Your task to perform on an android device: Clear the shopping cart on walmart. Search for "razer blackwidow" on walmart, select the first entry, and add it to the cart. Image 0: 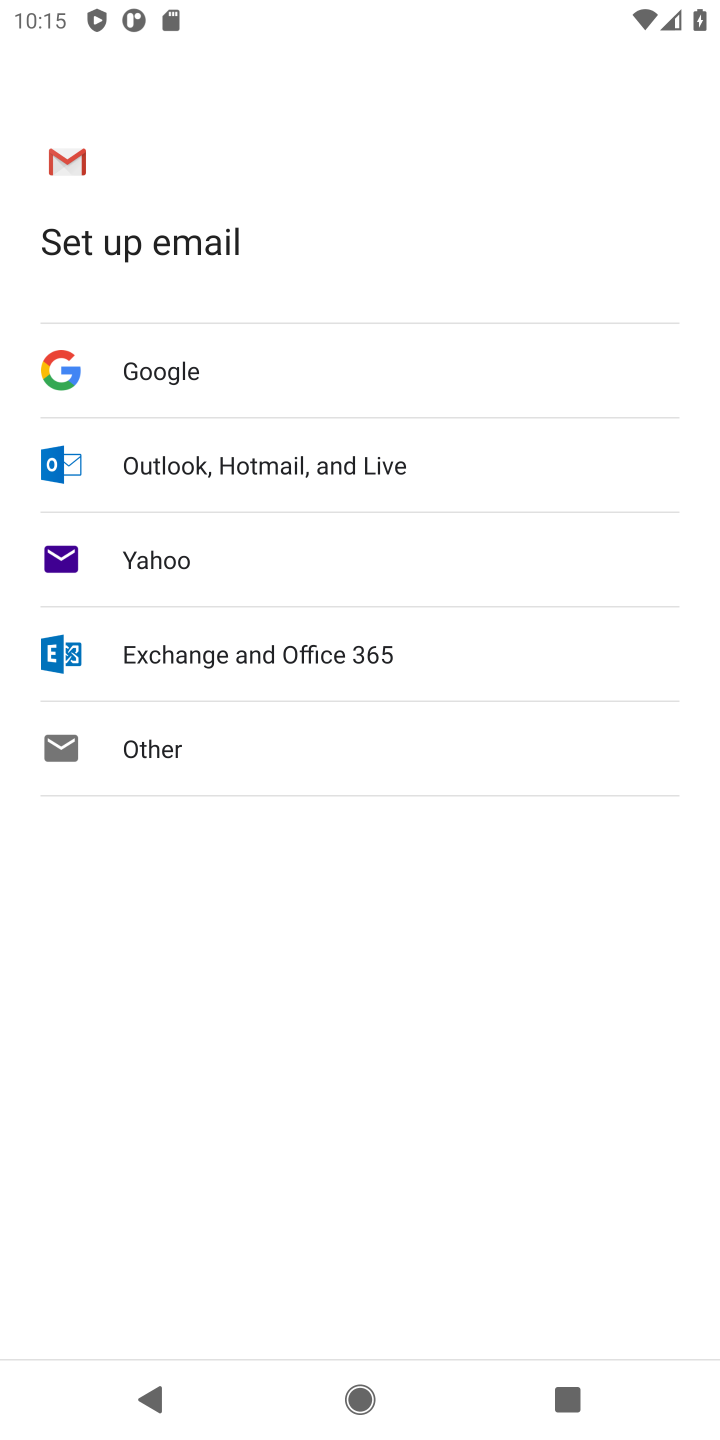
Step 0: press home button
Your task to perform on an android device: Clear the shopping cart on walmart. Search for "razer blackwidow" on walmart, select the first entry, and add it to the cart. Image 1: 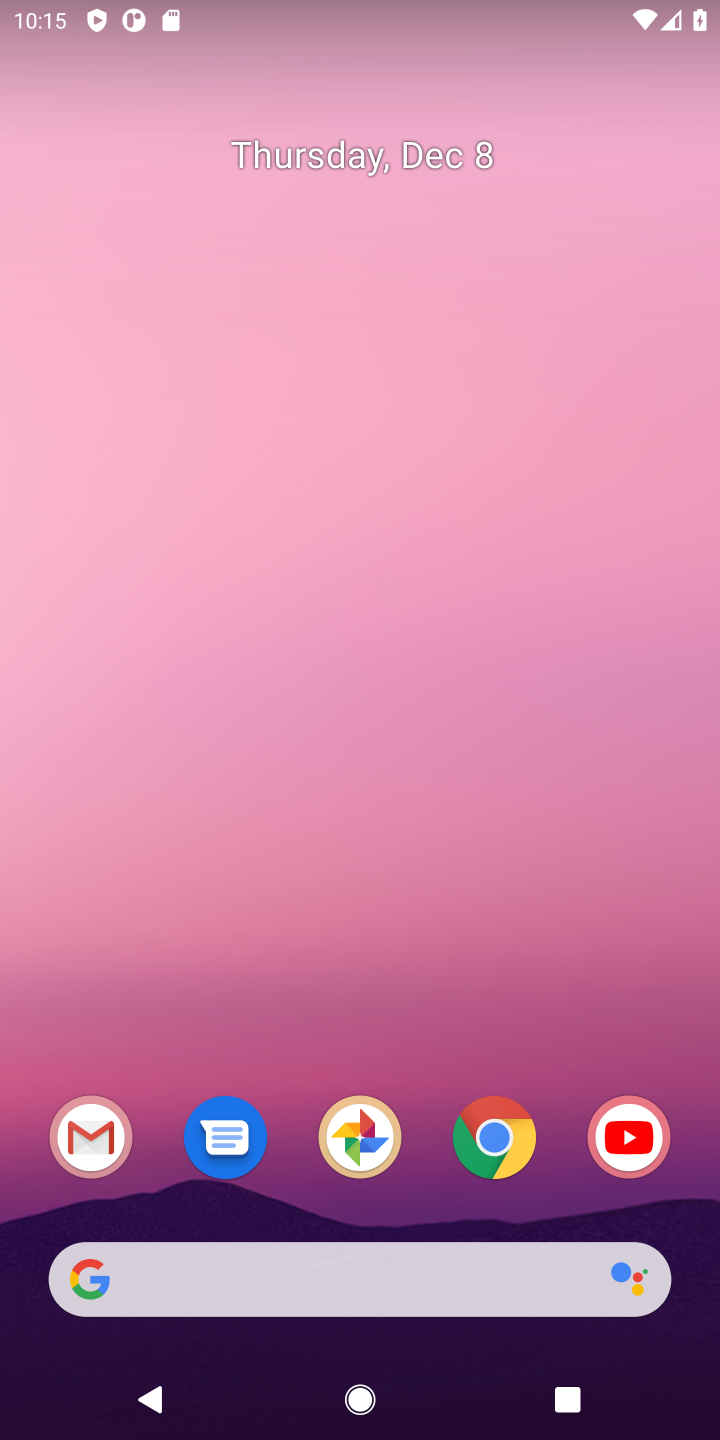
Step 1: click (481, 1128)
Your task to perform on an android device: Clear the shopping cart on walmart. Search for "razer blackwidow" on walmart, select the first entry, and add it to the cart. Image 2: 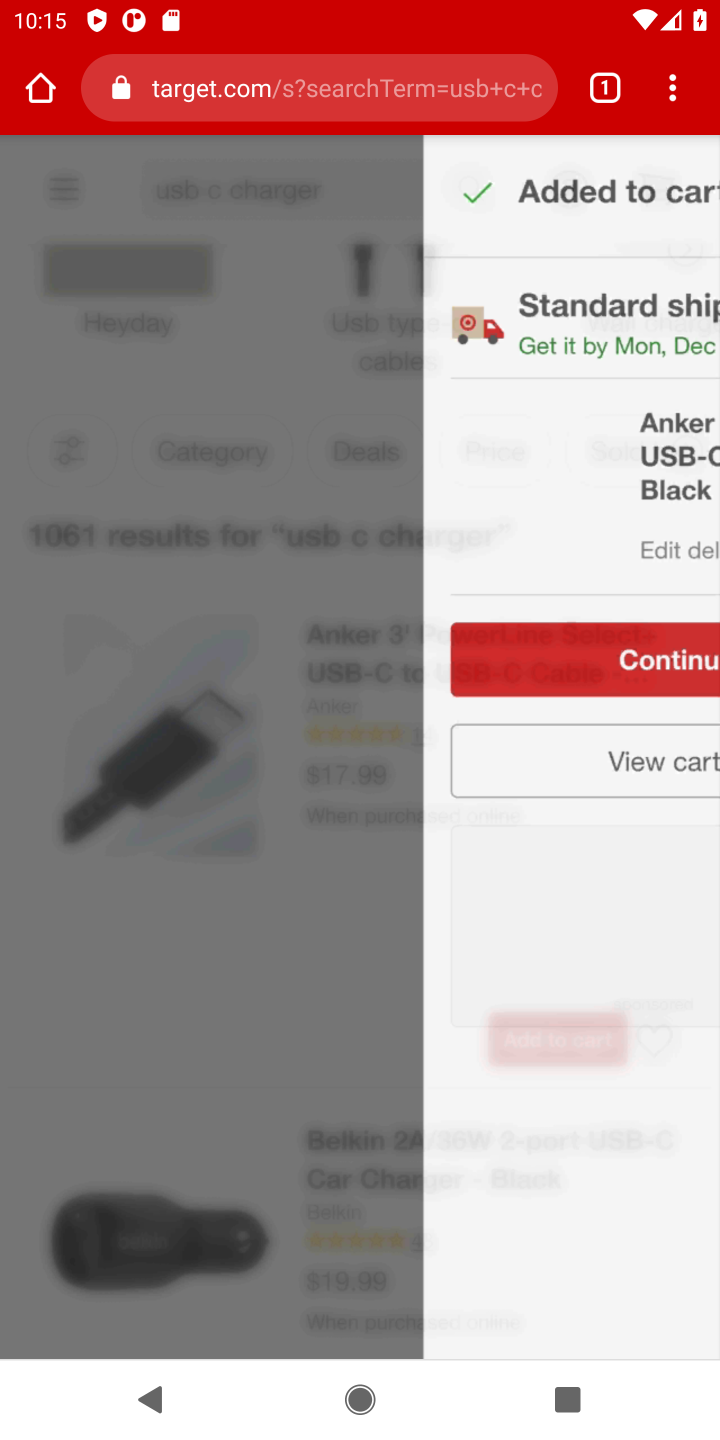
Step 2: click (319, 89)
Your task to perform on an android device: Clear the shopping cart on walmart. Search for "razer blackwidow" on walmart, select the first entry, and add it to the cart. Image 3: 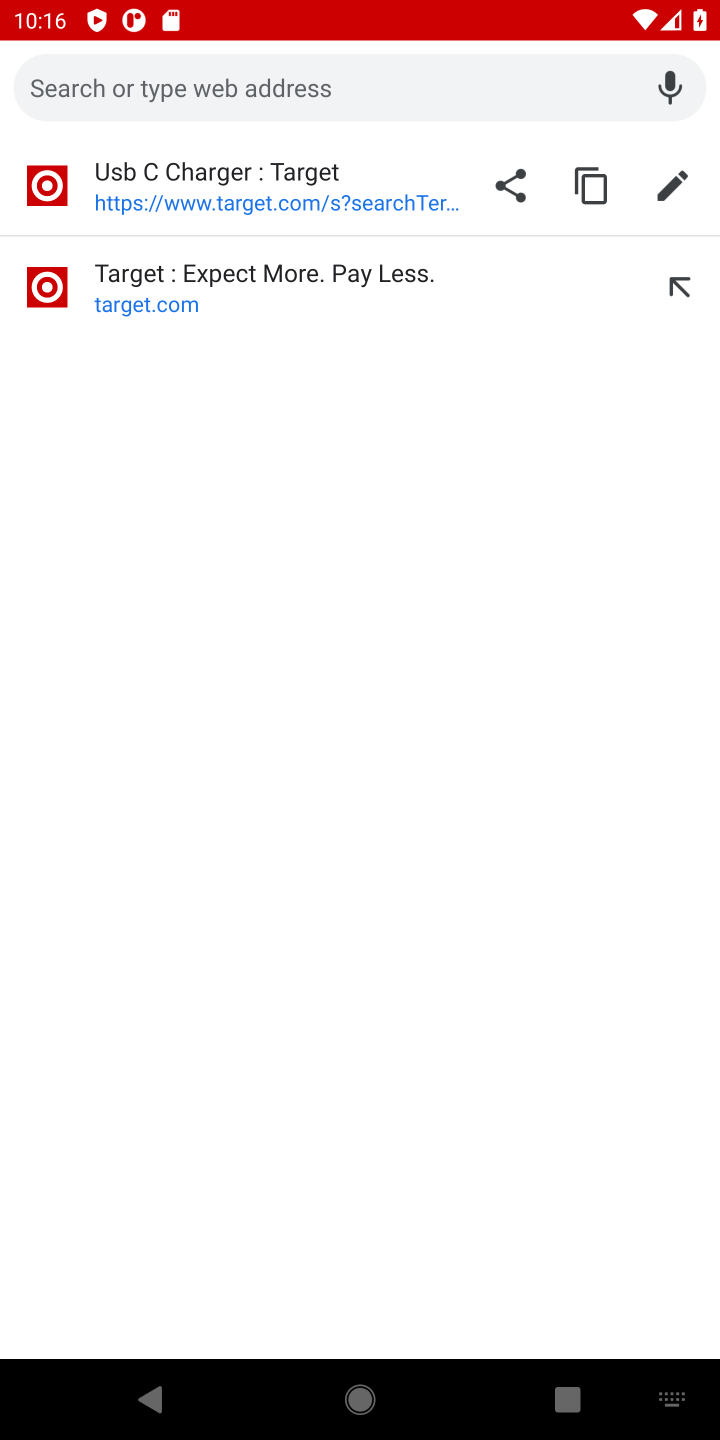
Step 3: type "walmart"
Your task to perform on an android device: Clear the shopping cart on walmart. Search for "razer blackwidow" on walmart, select the first entry, and add it to the cart. Image 4: 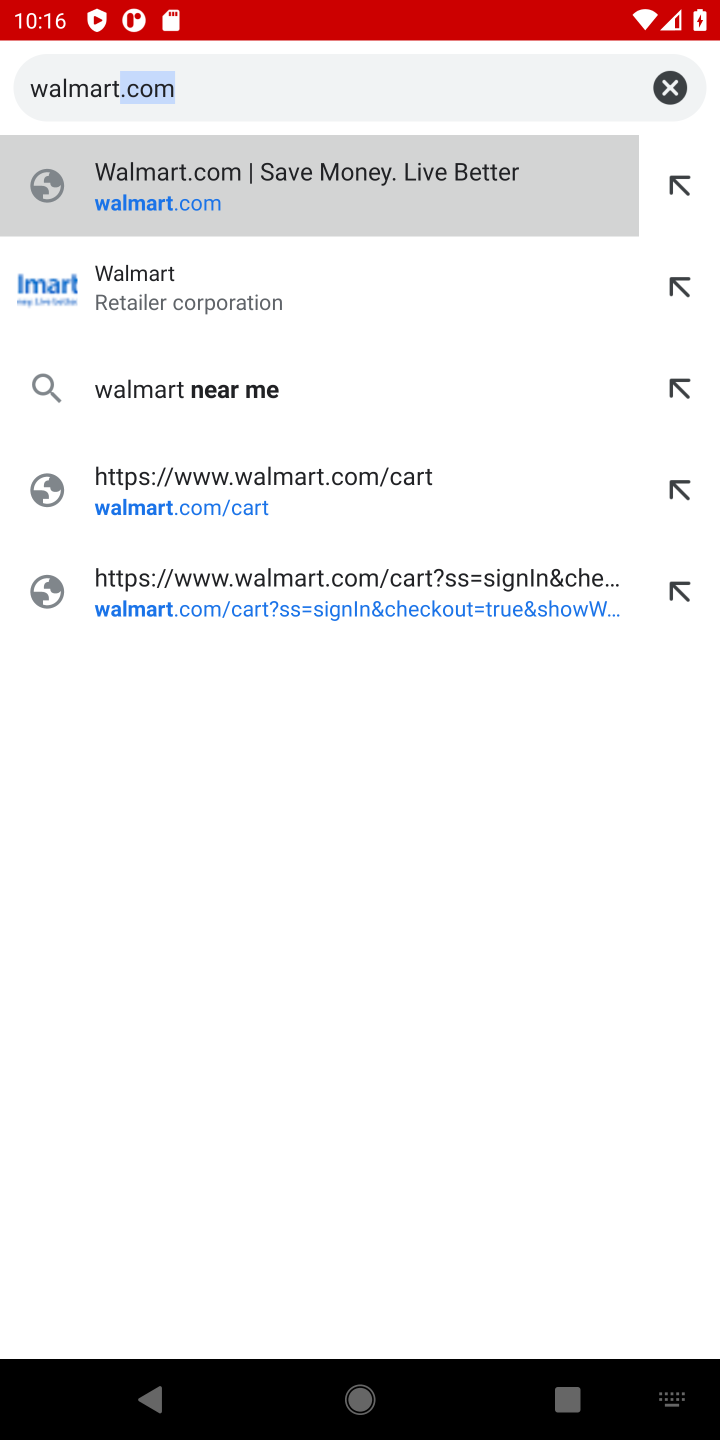
Step 4: click (194, 196)
Your task to perform on an android device: Clear the shopping cart on walmart. Search for "razer blackwidow" on walmart, select the first entry, and add it to the cart. Image 5: 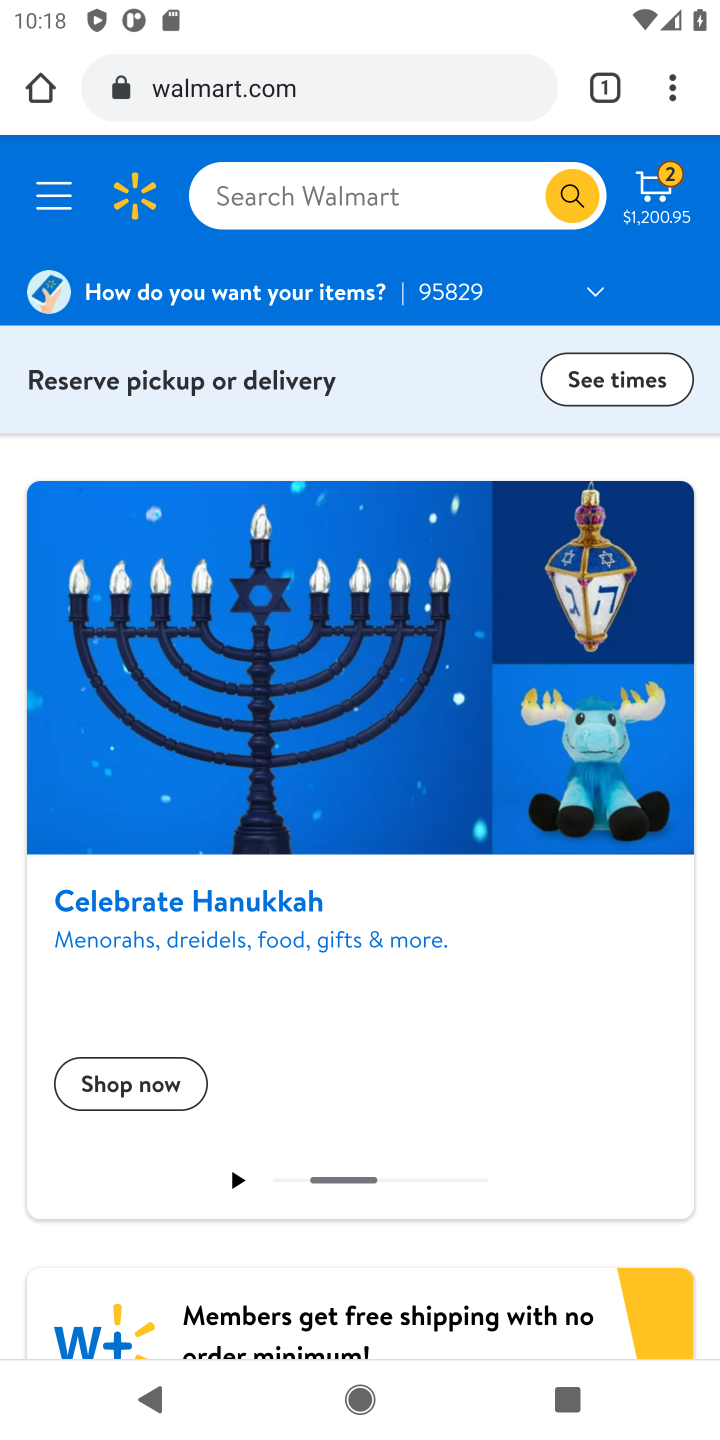
Step 5: click (382, 202)
Your task to perform on an android device: Clear the shopping cart on walmart. Search for "razer blackwidow" on walmart, select the first entry, and add it to the cart. Image 6: 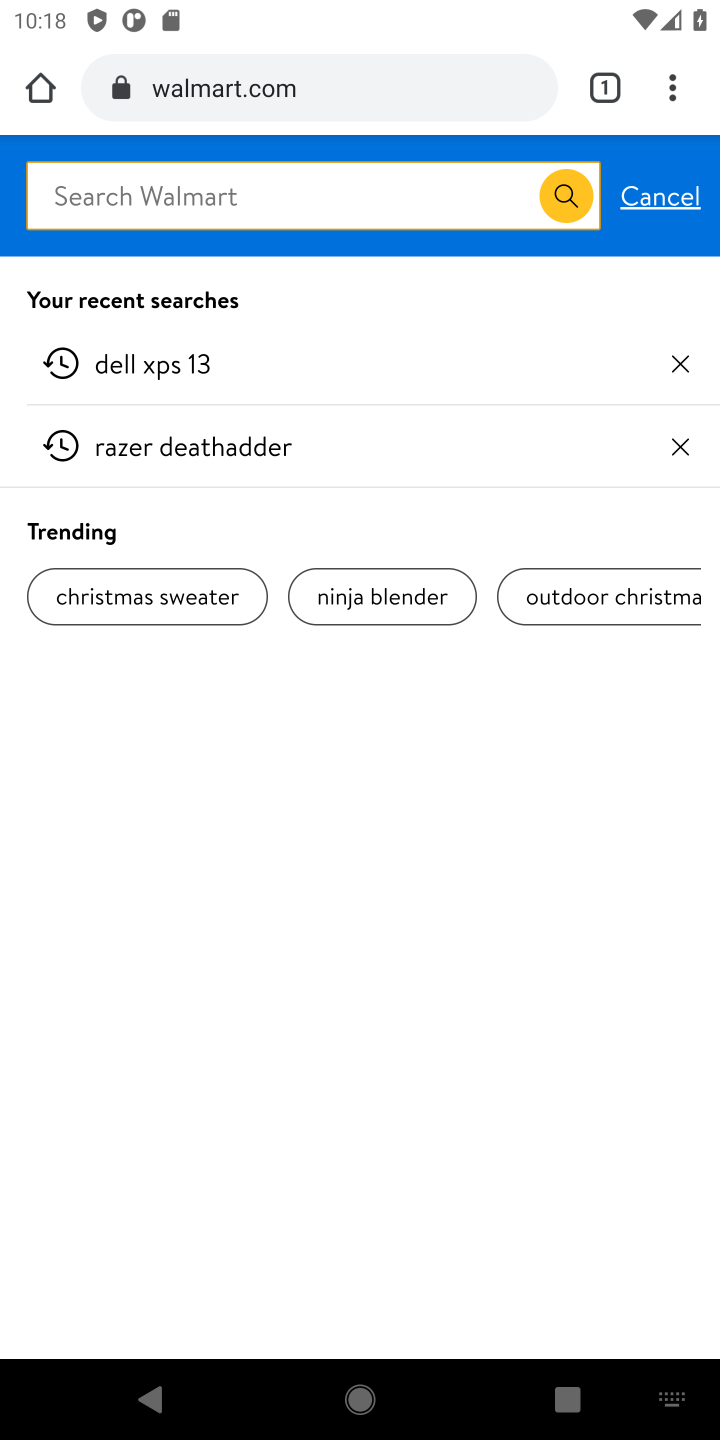
Step 6: click (139, 370)
Your task to perform on an android device: Clear the shopping cart on walmart. Search for "razer blackwidow" on walmart, select the first entry, and add it to the cart. Image 7: 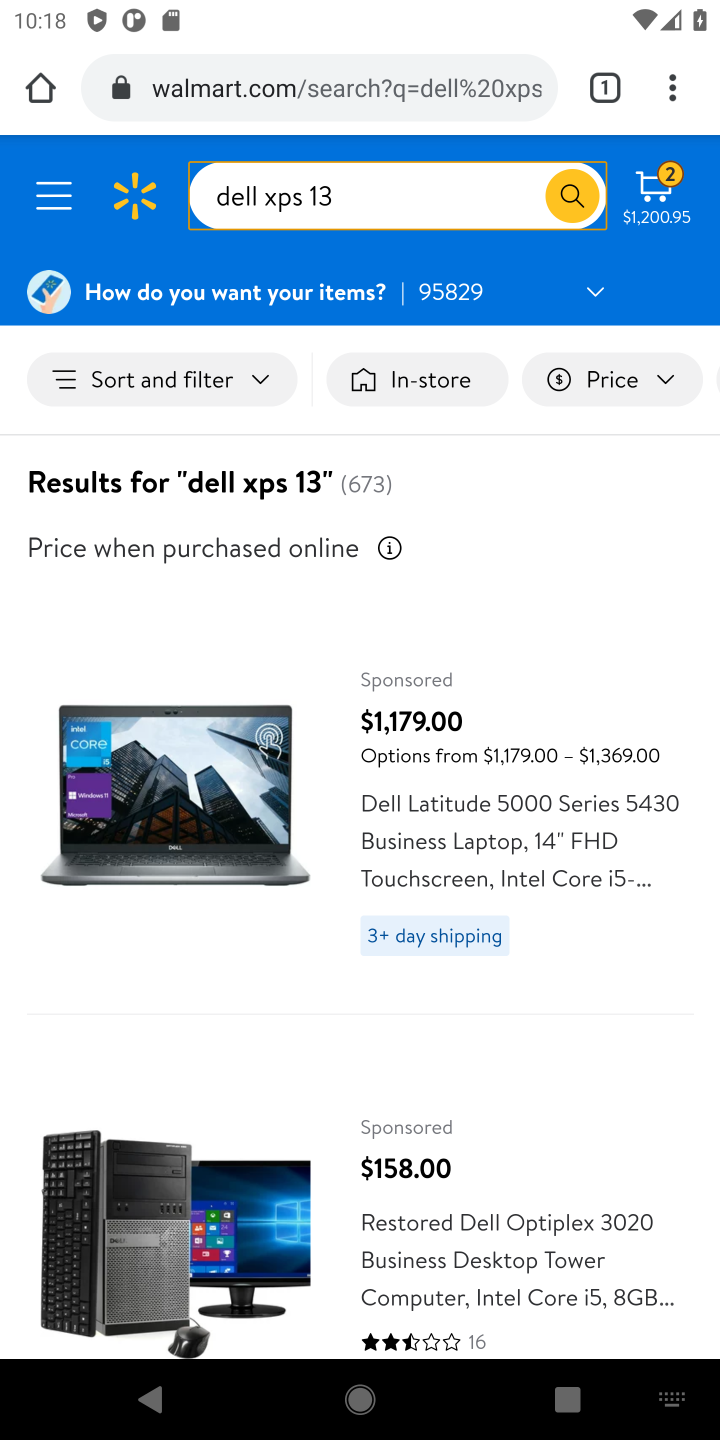
Step 7: click (652, 181)
Your task to perform on an android device: Clear the shopping cart on walmart. Search for "razer blackwidow" on walmart, select the first entry, and add it to the cart. Image 8: 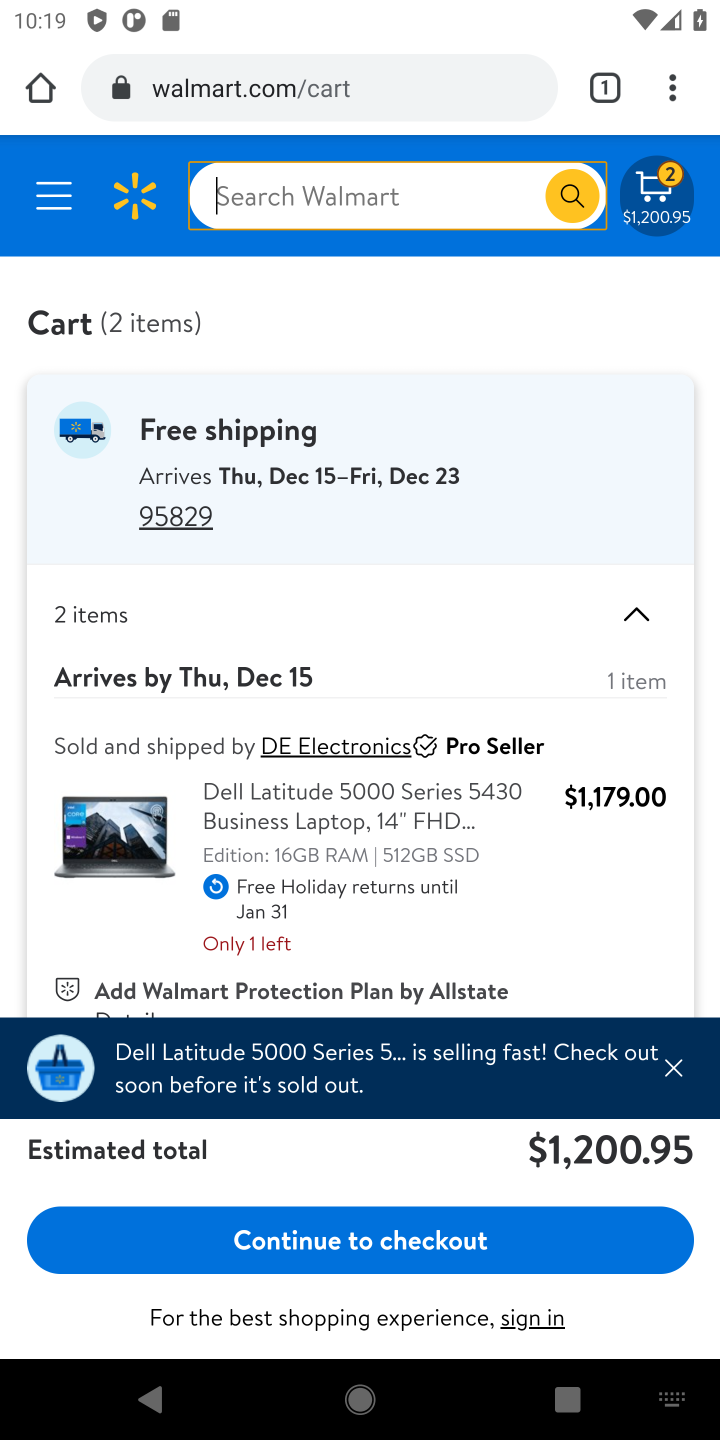
Step 8: drag from (470, 921) to (375, 249)
Your task to perform on an android device: Clear the shopping cart on walmart. Search for "razer blackwidow" on walmart, select the first entry, and add it to the cart. Image 9: 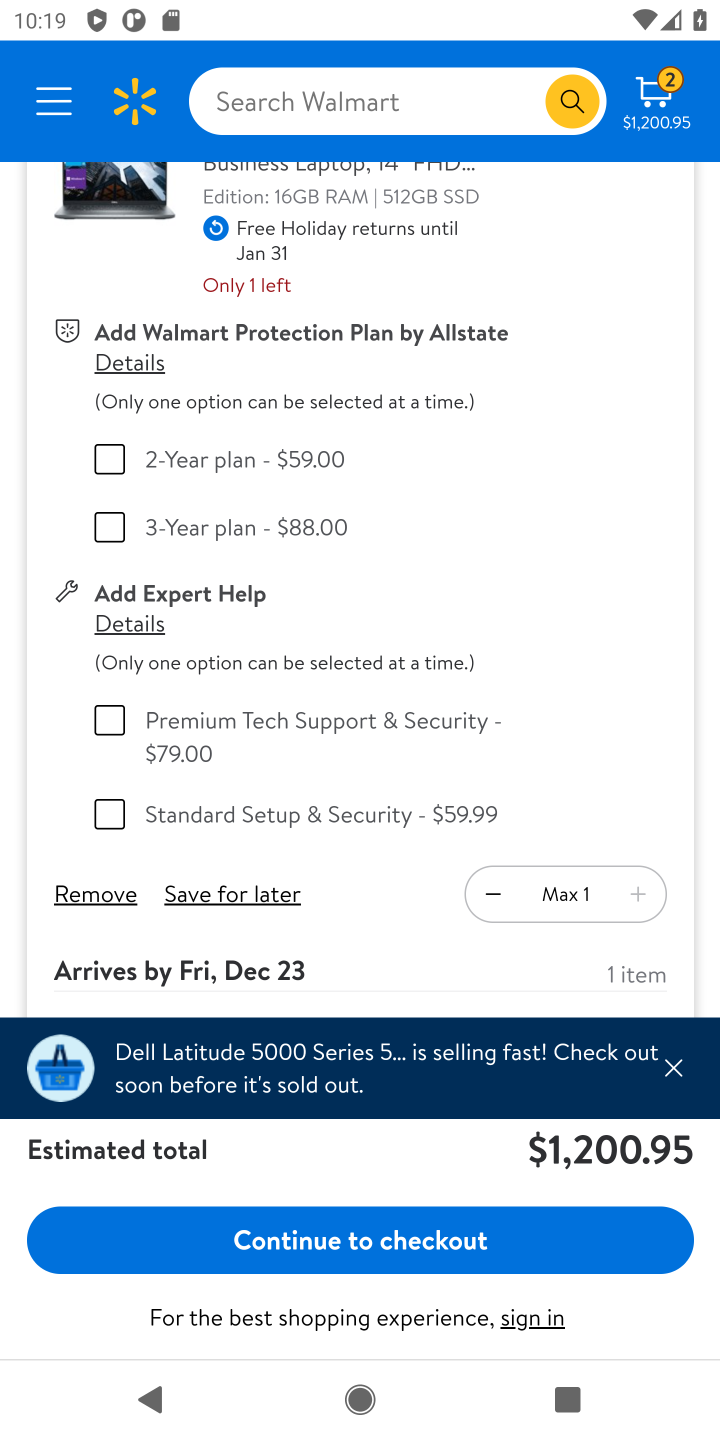
Step 9: click (72, 897)
Your task to perform on an android device: Clear the shopping cart on walmart. Search for "razer blackwidow" on walmart, select the first entry, and add it to the cart. Image 10: 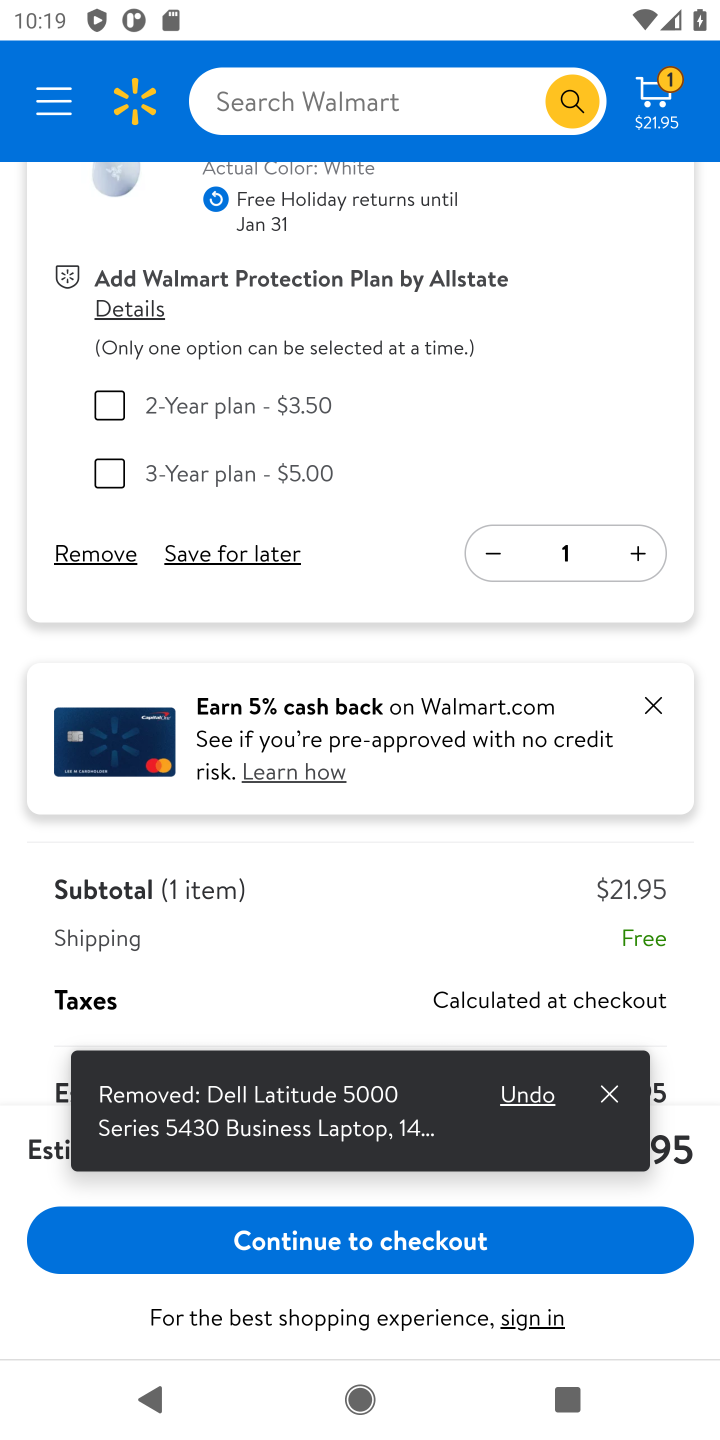
Step 10: click (95, 553)
Your task to perform on an android device: Clear the shopping cart on walmart. Search for "razer blackwidow" on walmart, select the first entry, and add it to the cart. Image 11: 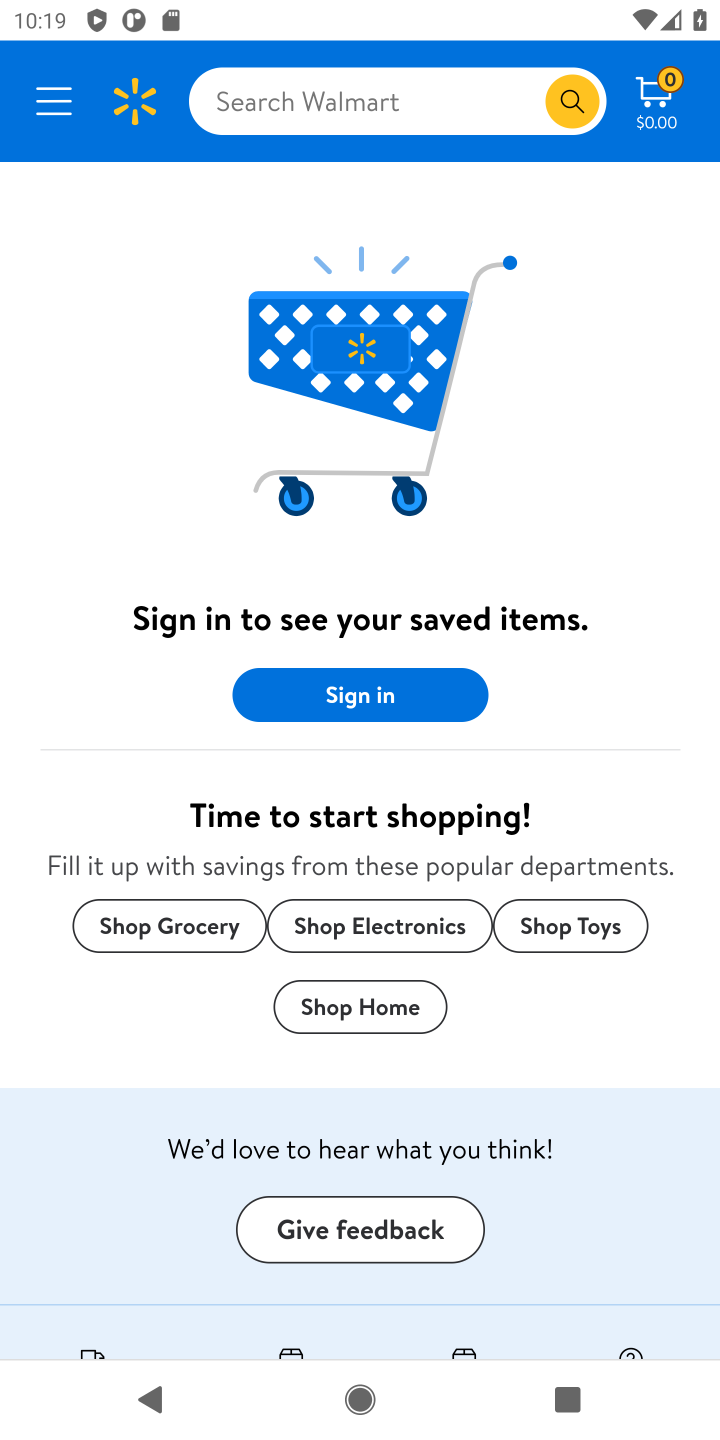
Step 11: click (464, 101)
Your task to perform on an android device: Clear the shopping cart on walmart. Search for "razer blackwidow" on walmart, select the first entry, and add it to the cart. Image 12: 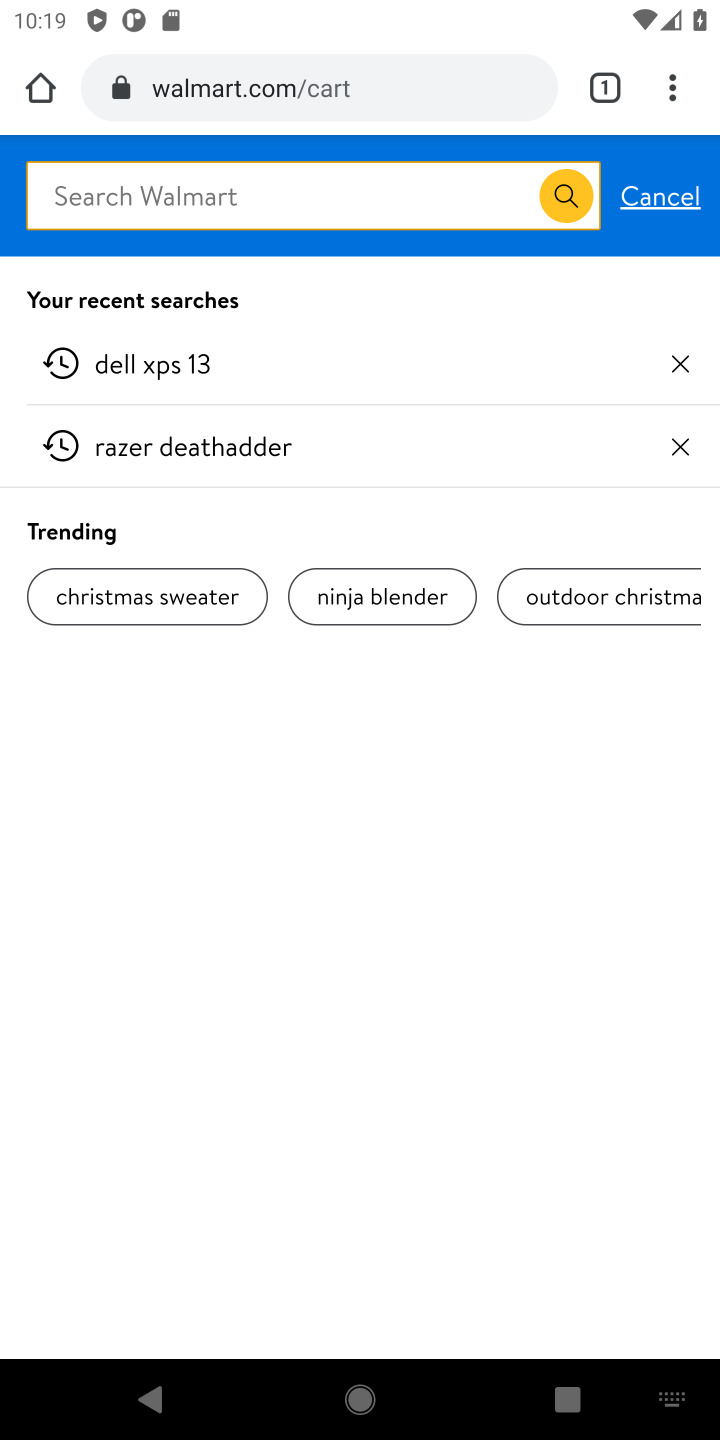
Step 12: type "razer blackwidow"
Your task to perform on an android device: Clear the shopping cart on walmart. Search for "razer blackwidow" on walmart, select the first entry, and add it to the cart. Image 13: 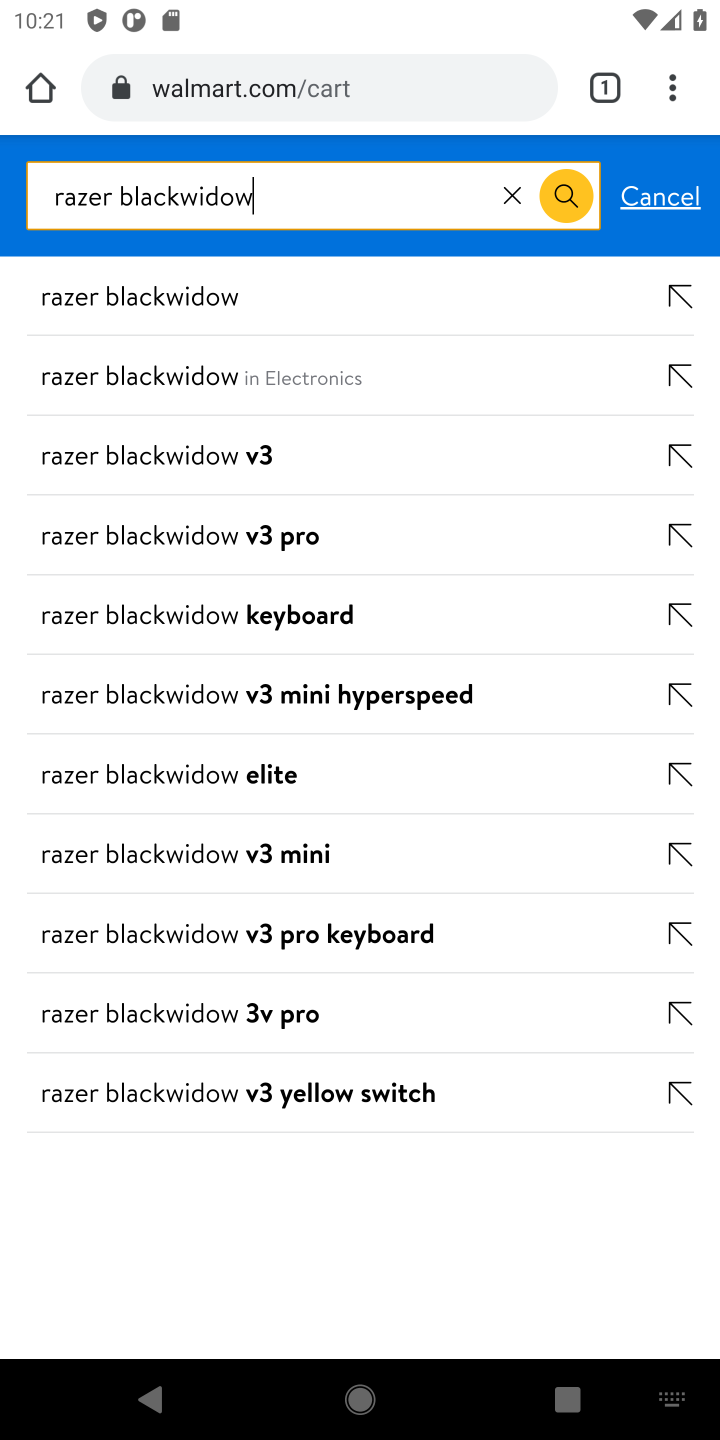
Step 13: click (246, 309)
Your task to perform on an android device: Clear the shopping cart on walmart. Search for "razer blackwidow" on walmart, select the first entry, and add it to the cart. Image 14: 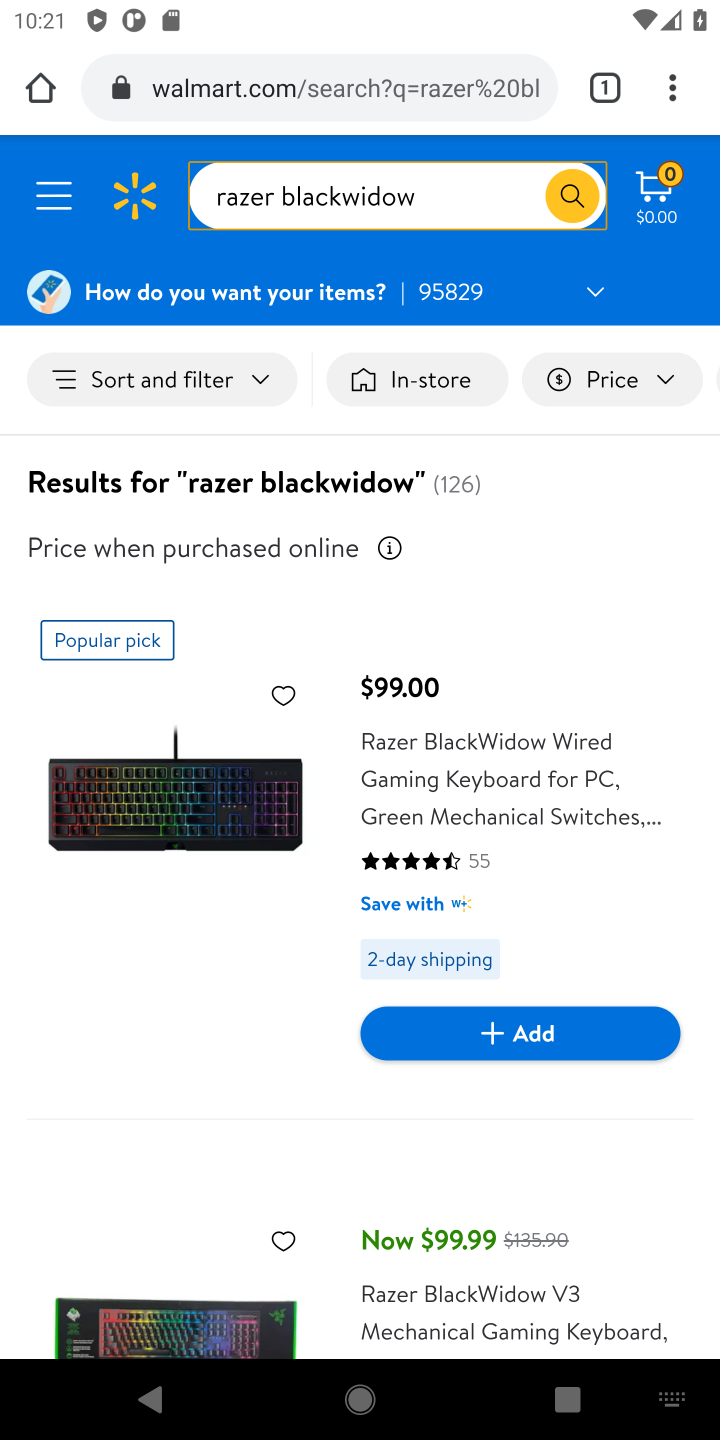
Step 14: click (521, 1032)
Your task to perform on an android device: Clear the shopping cart on walmart. Search for "razer blackwidow" on walmart, select the first entry, and add it to the cart. Image 15: 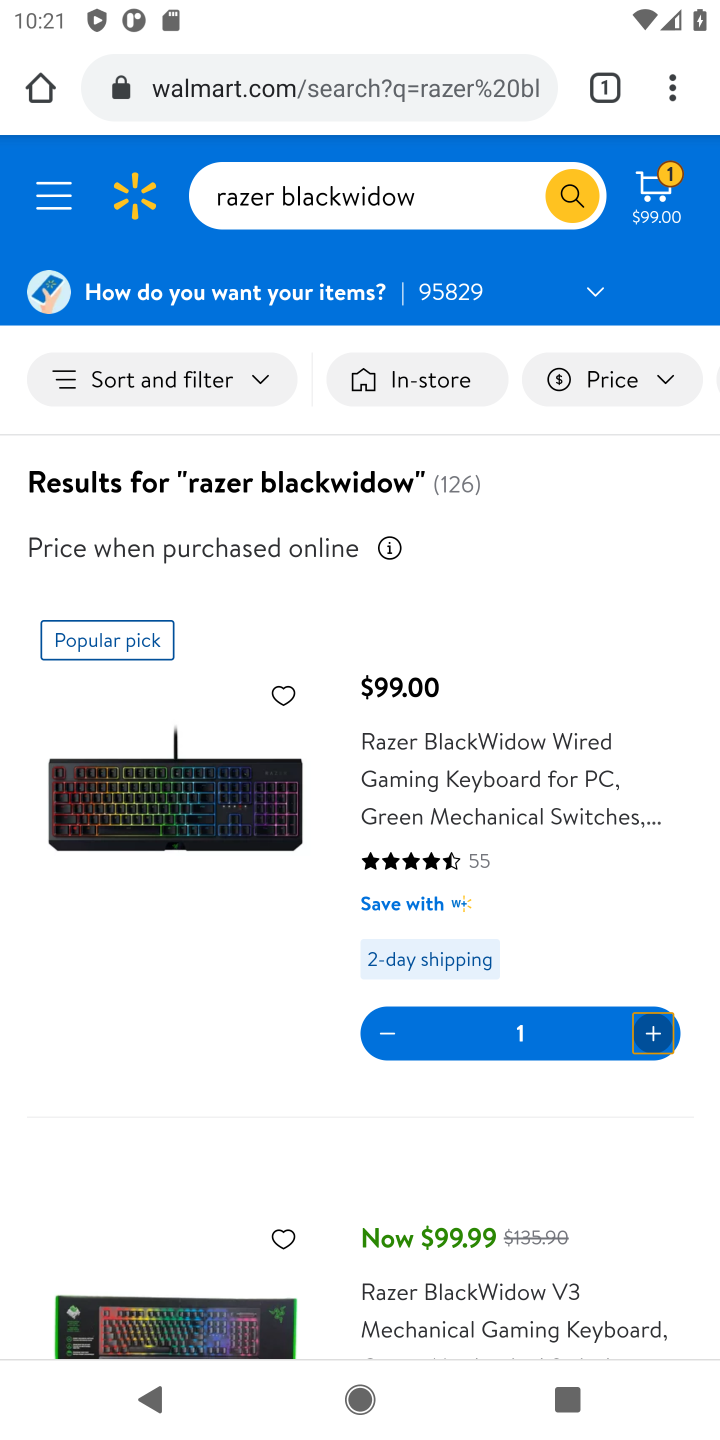
Step 15: task complete